Your task to perform on an android device: turn smart compose on in the gmail app Image 0: 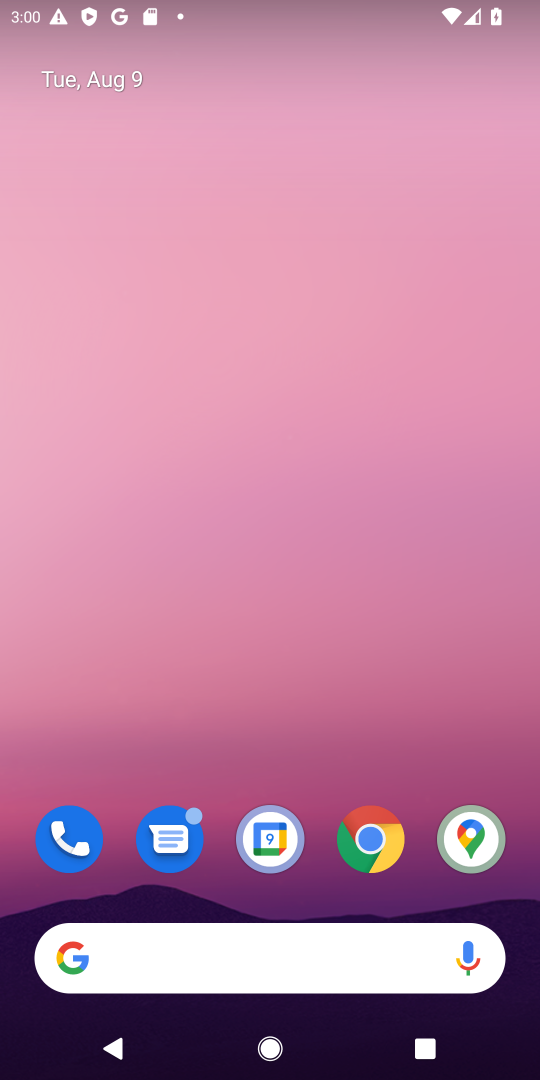
Step 0: press home button
Your task to perform on an android device: turn smart compose on in the gmail app Image 1: 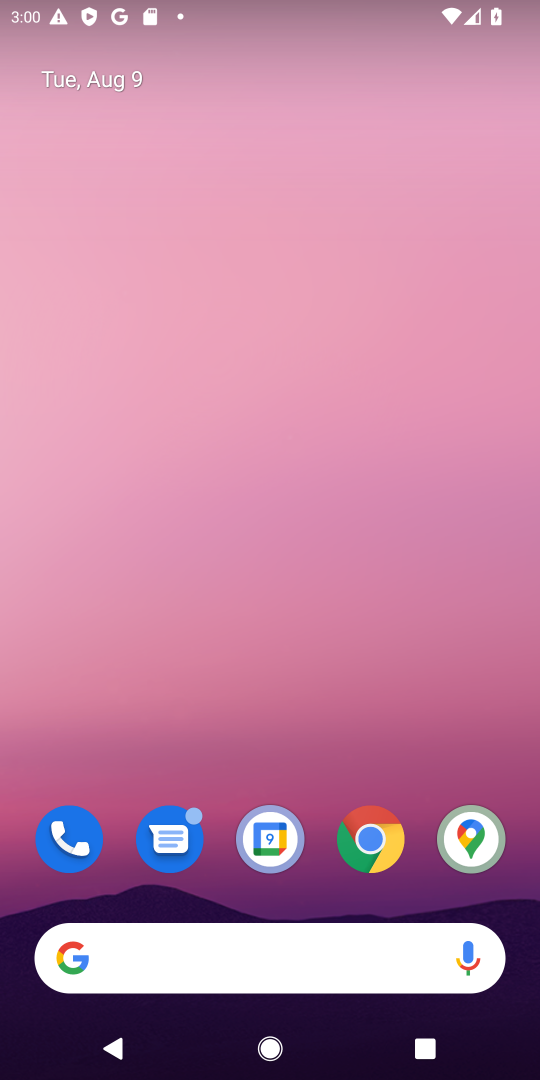
Step 1: drag from (410, 718) to (193, 1075)
Your task to perform on an android device: turn smart compose on in the gmail app Image 2: 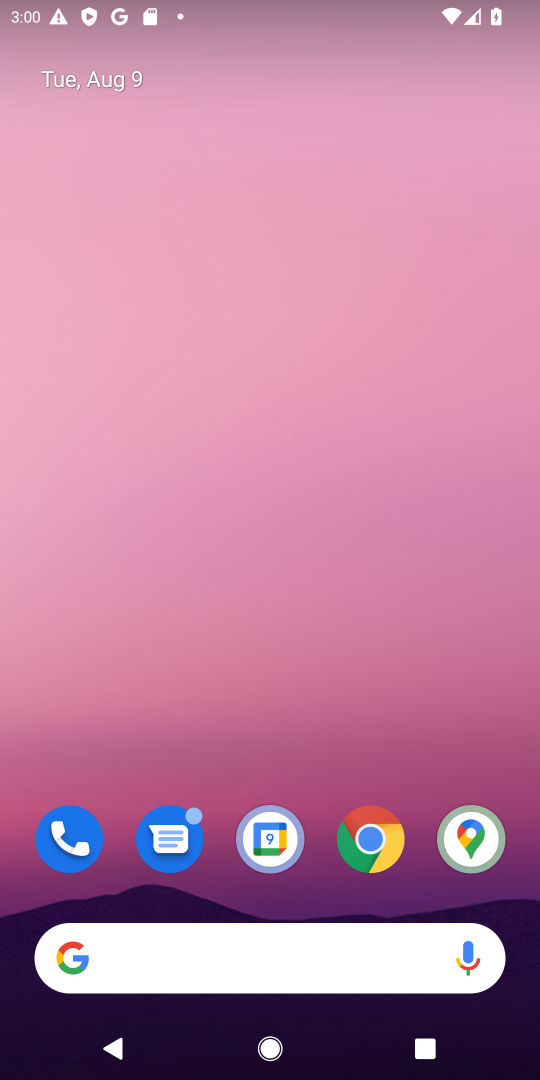
Step 2: drag from (405, 730) to (393, 42)
Your task to perform on an android device: turn smart compose on in the gmail app Image 3: 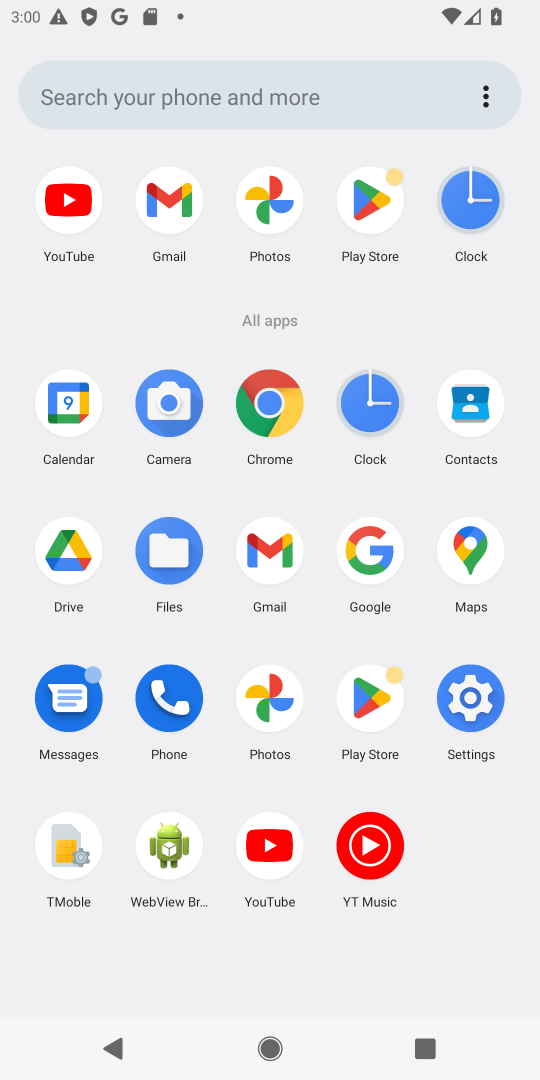
Step 3: click (174, 200)
Your task to perform on an android device: turn smart compose on in the gmail app Image 4: 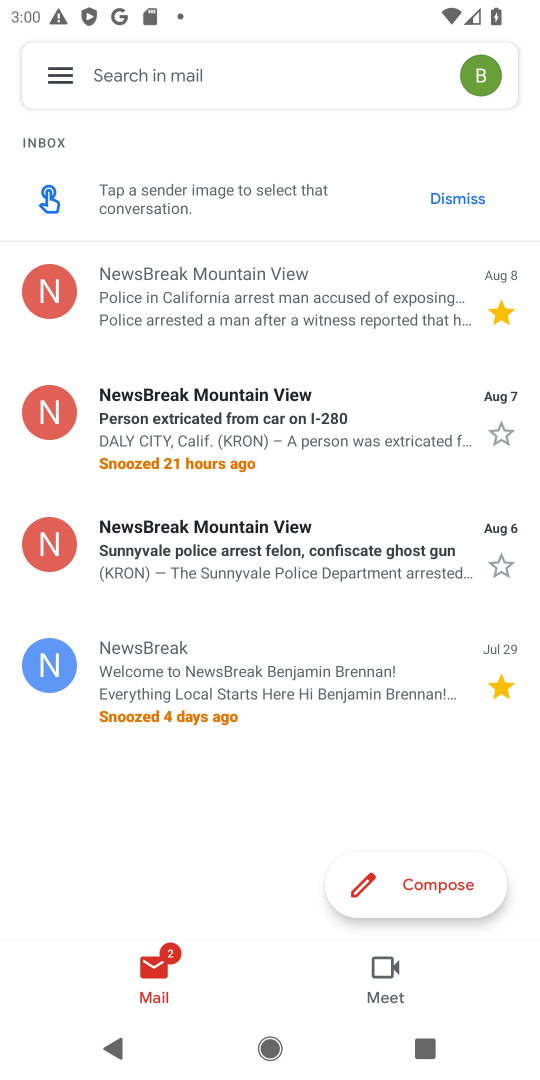
Step 4: click (46, 78)
Your task to perform on an android device: turn smart compose on in the gmail app Image 5: 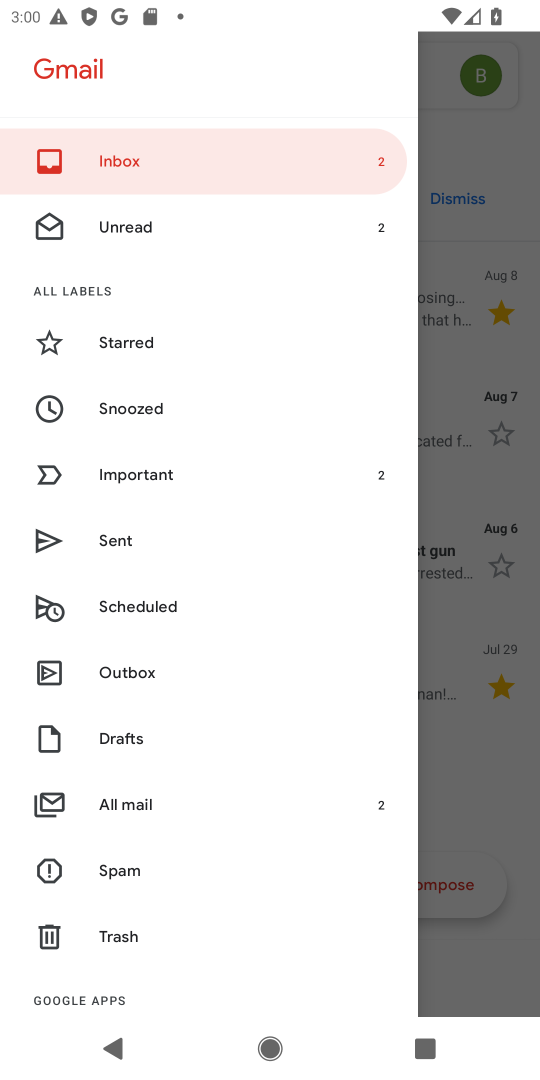
Step 5: drag from (130, 996) to (169, 458)
Your task to perform on an android device: turn smart compose on in the gmail app Image 6: 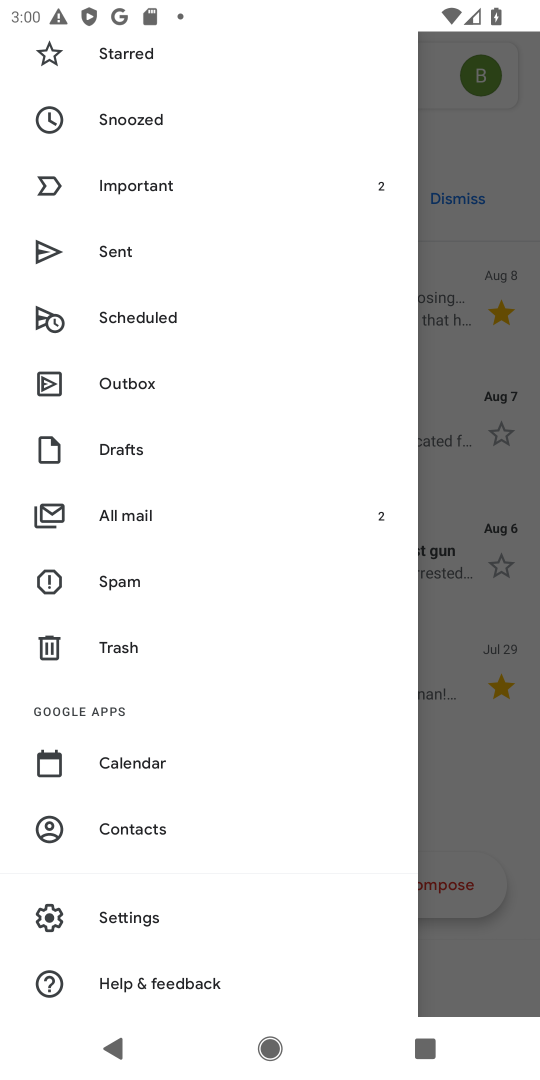
Step 6: click (111, 914)
Your task to perform on an android device: turn smart compose on in the gmail app Image 7: 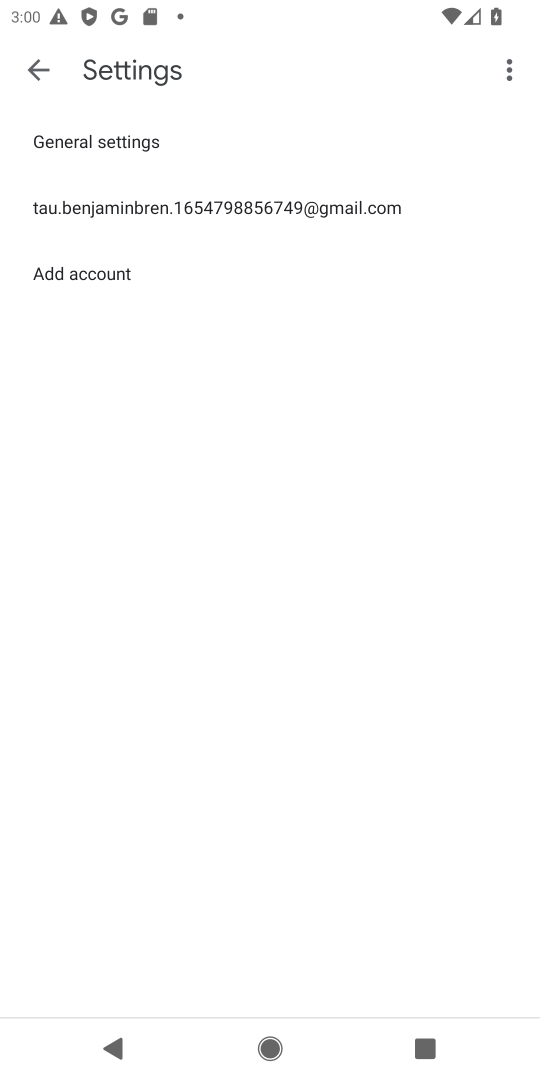
Step 7: click (72, 204)
Your task to perform on an android device: turn smart compose on in the gmail app Image 8: 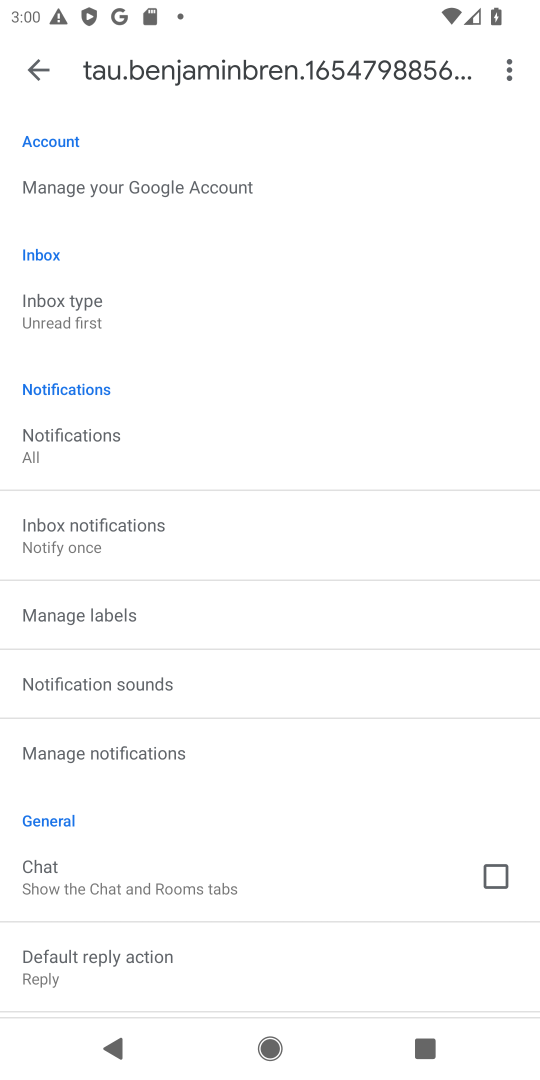
Step 8: task complete